Your task to perform on an android device: open app "DoorDash - Food Delivery" Image 0: 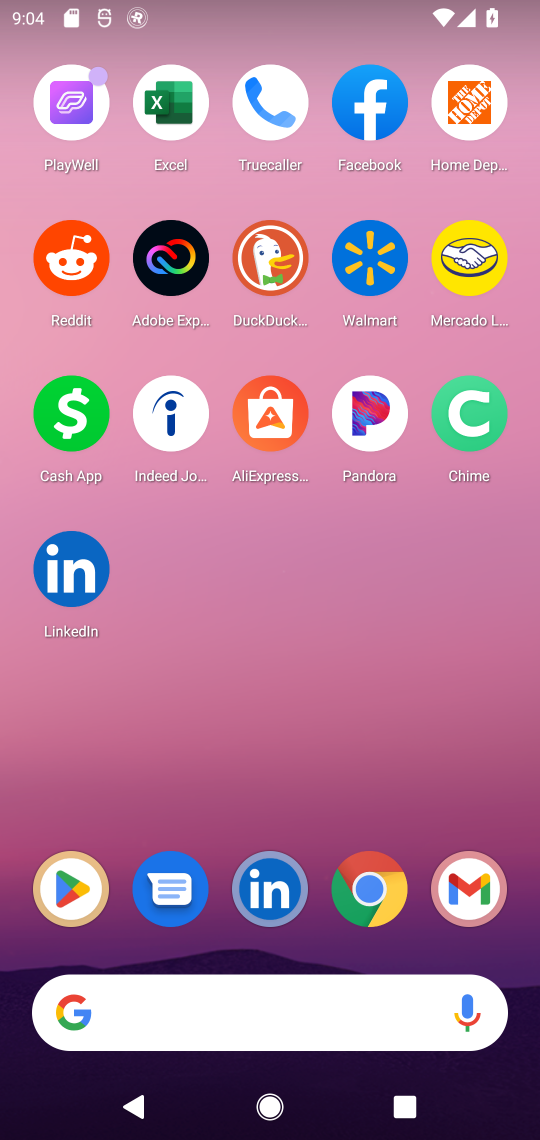
Step 0: press home button
Your task to perform on an android device: open app "DoorDash - Food Delivery" Image 1: 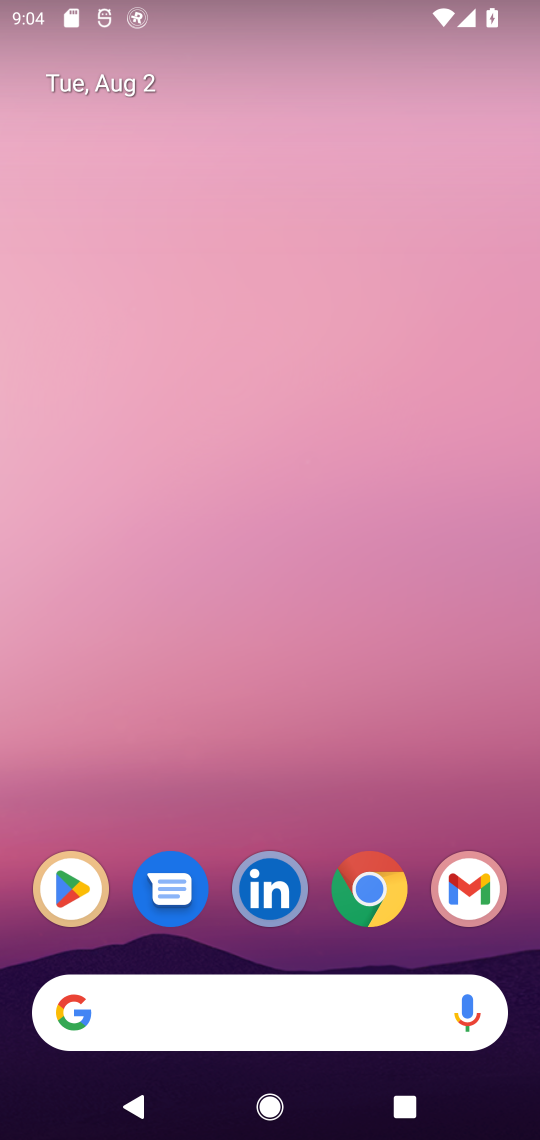
Step 1: click (64, 886)
Your task to perform on an android device: open app "DoorDash - Food Delivery" Image 2: 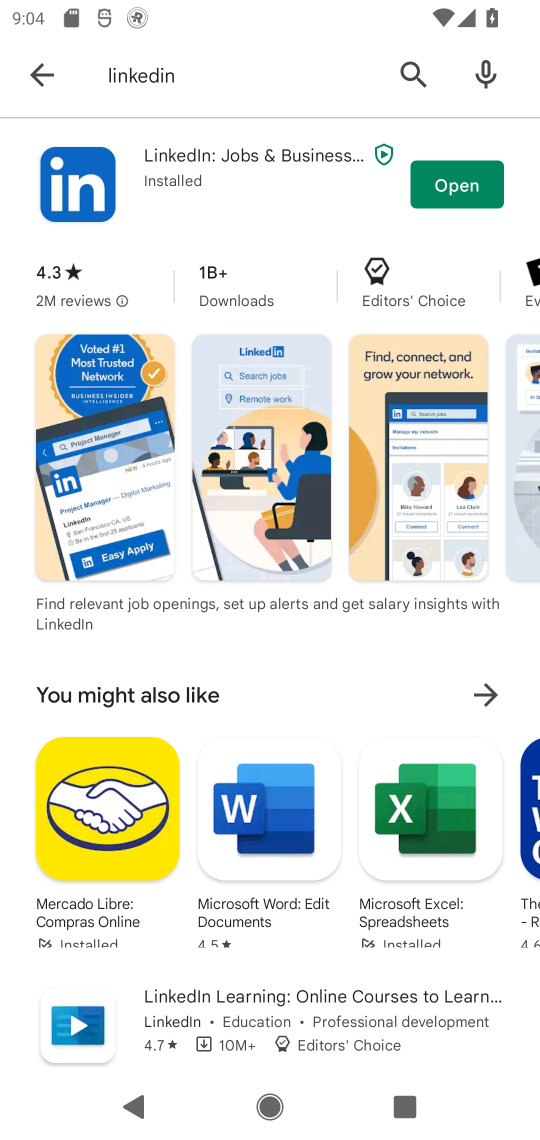
Step 2: click (405, 67)
Your task to perform on an android device: open app "DoorDash - Food Delivery" Image 3: 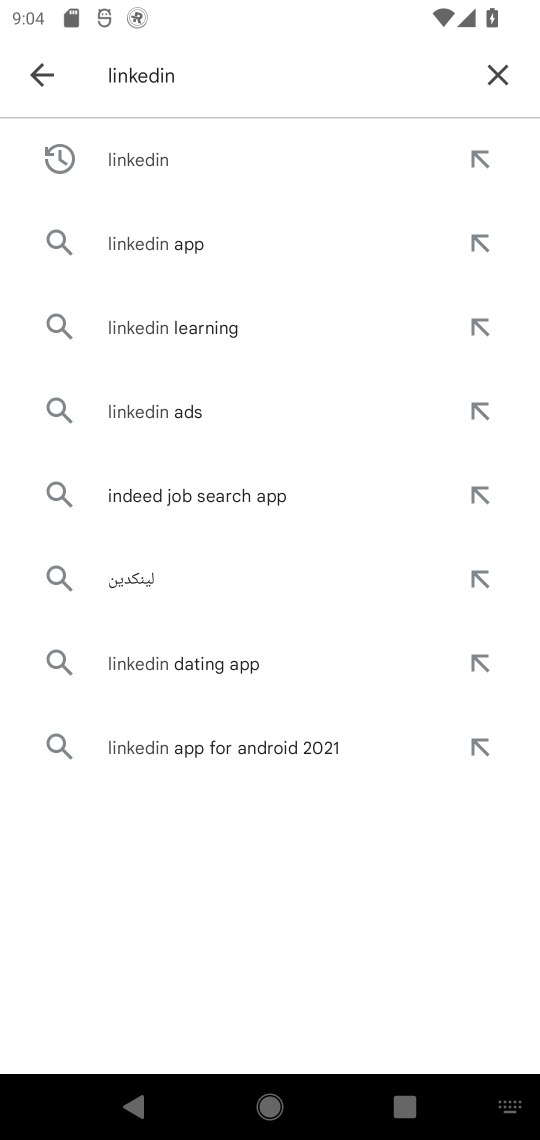
Step 3: click (505, 71)
Your task to perform on an android device: open app "DoorDash - Food Delivery" Image 4: 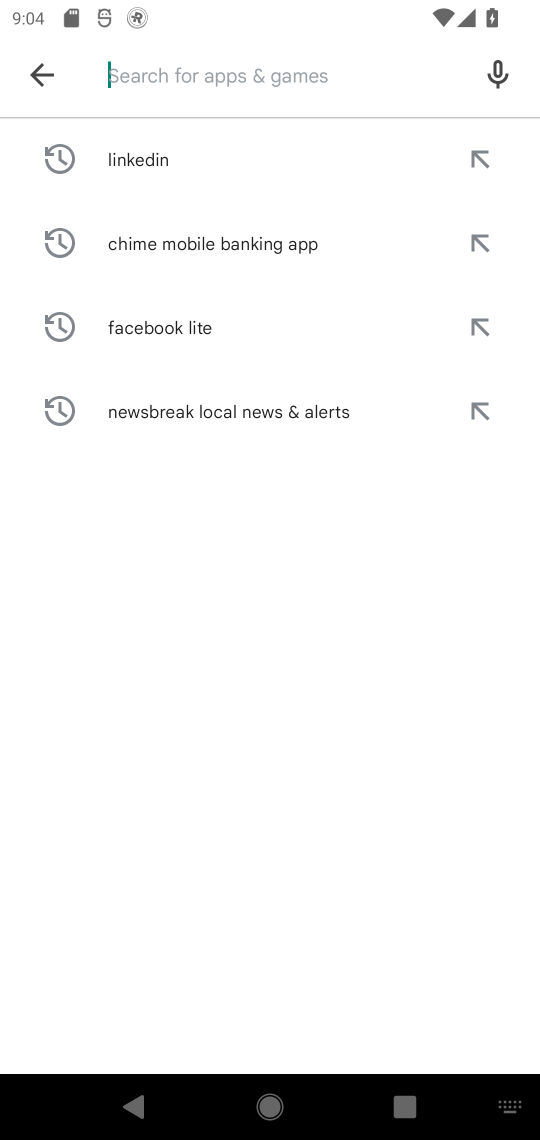
Step 4: type "DoorDash - Food Delivery"
Your task to perform on an android device: open app "DoorDash - Food Delivery" Image 5: 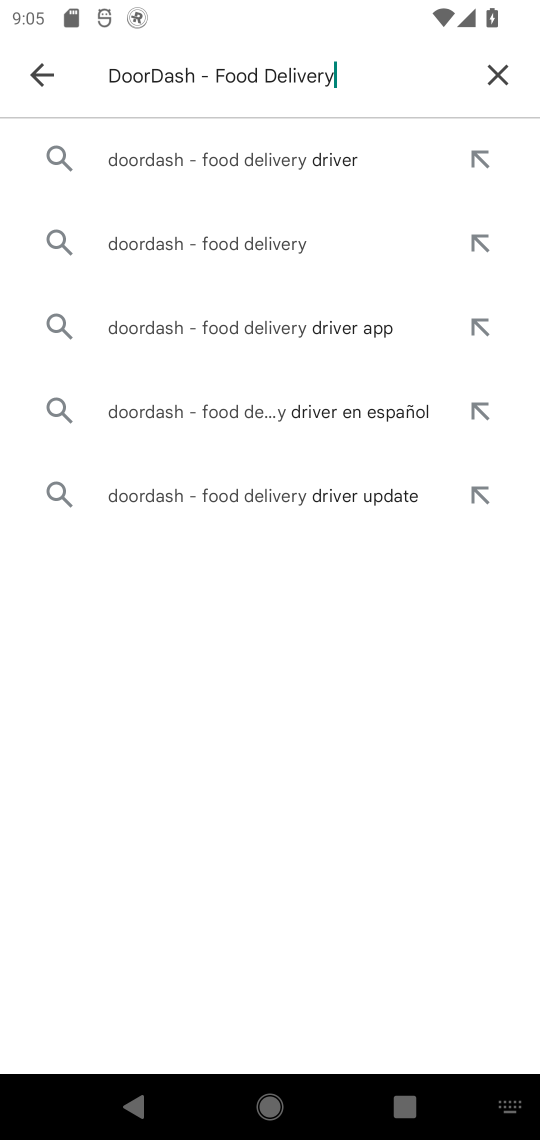
Step 5: click (283, 168)
Your task to perform on an android device: open app "DoorDash - Food Delivery" Image 6: 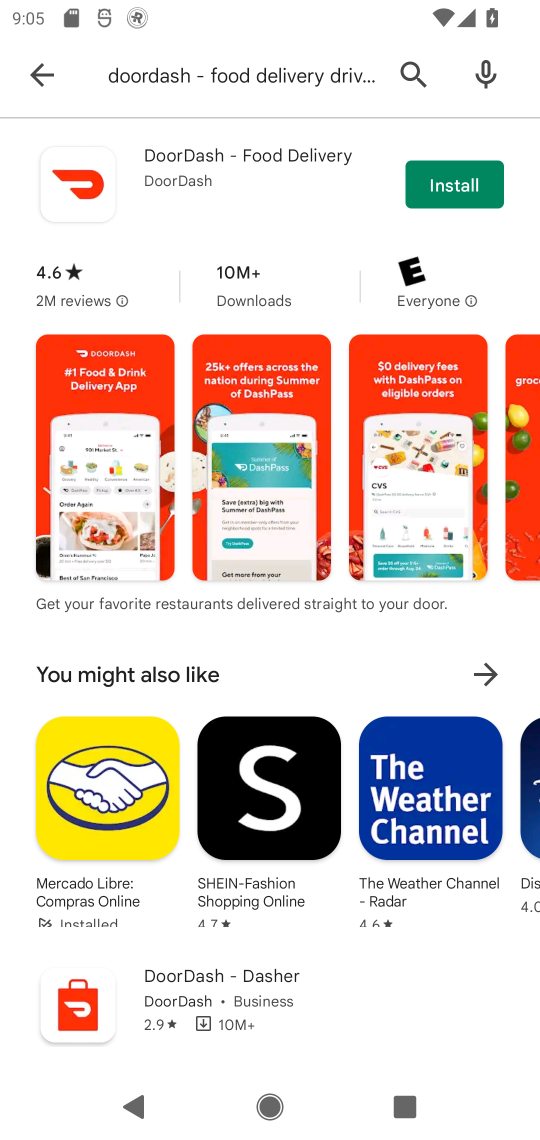
Step 6: task complete